Your task to perform on an android device: choose inbox layout in the gmail app Image 0: 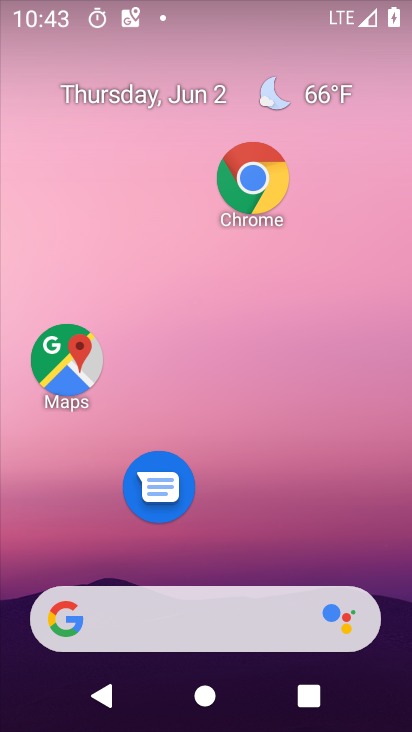
Step 0: drag from (228, 725) to (186, 206)
Your task to perform on an android device: choose inbox layout in the gmail app Image 1: 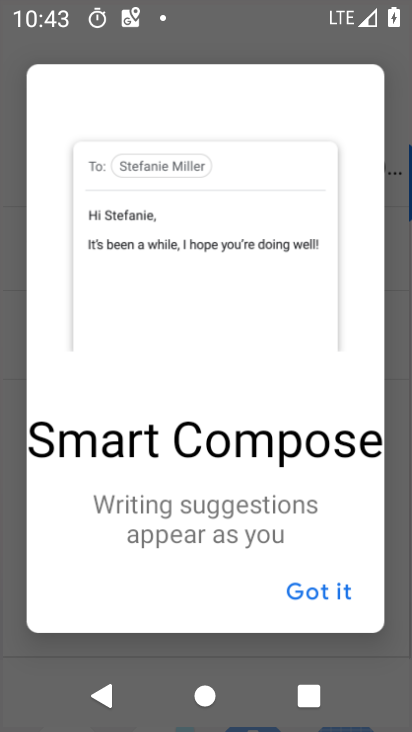
Step 1: click (338, 473)
Your task to perform on an android device: choose inbox layout in the gmail app Image 2: 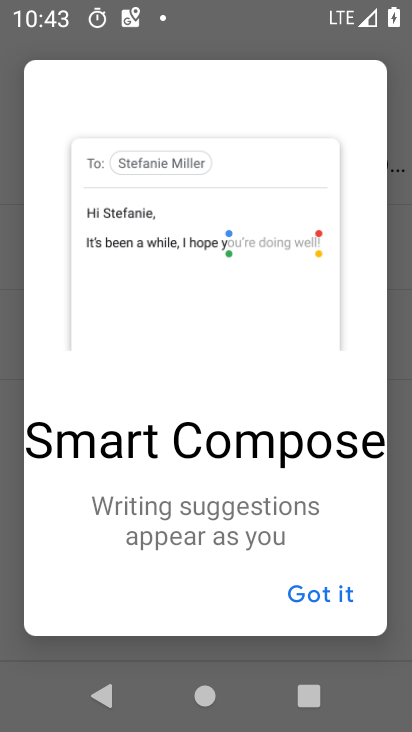
Step 2: press home button
Your task to perform on an android device: choose inbox layout in the gmail app Image 3: 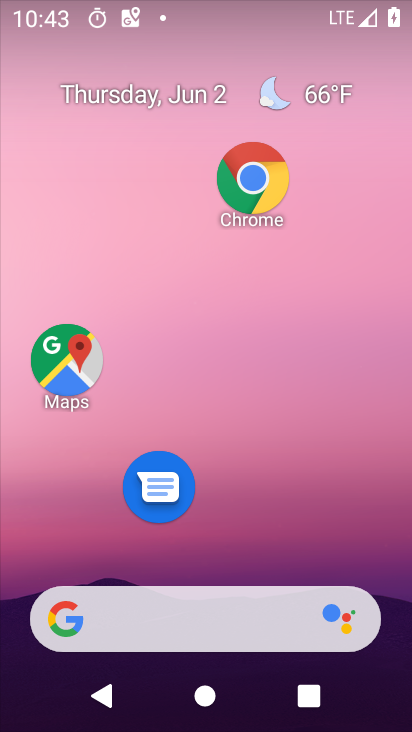
Step 3: drag from (237, 725) to (236, 122)
Your task to perform on an android device: choose inbox layout in the gmail app Image 4: 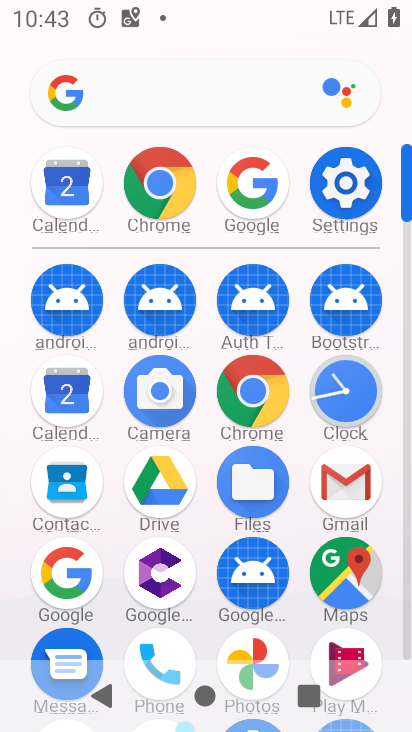
Step 4: click (339, 468)
Your task to perform on an android device: choose inbox layout in the gmail app Image 5: 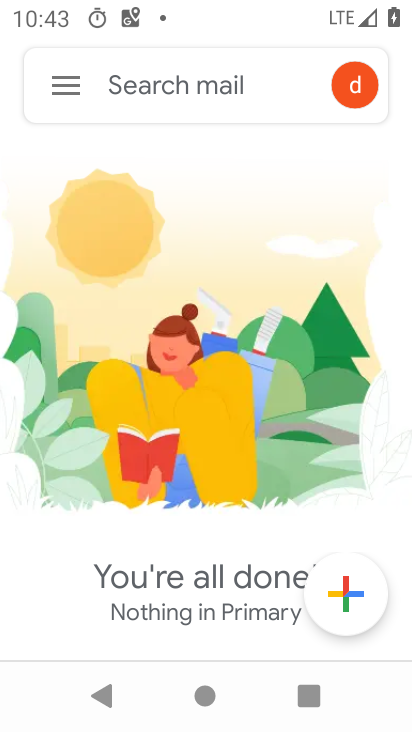
Step 5: click (60, 84)
Your task to perform on an android device: choose inbox layout in the gmail app Image 6: 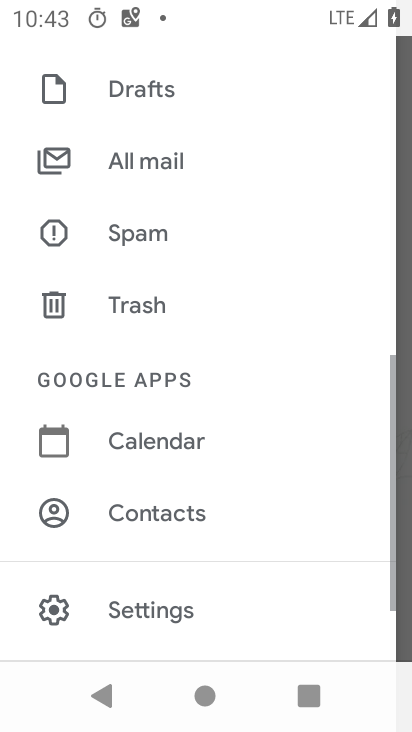
Step 6: click (167, 604)
Your task to perform on an android device: choose inbox layout in the gmail app Image 7: 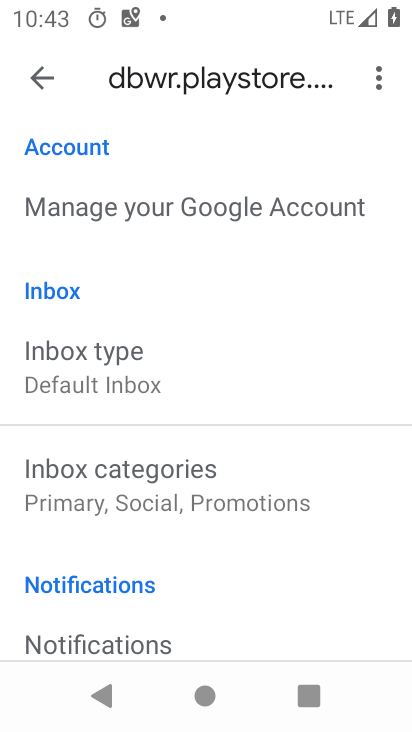
Step 7: click (88, 378)
Your task to perform on an android device: choose inbox layout in the gmail app Image 8: 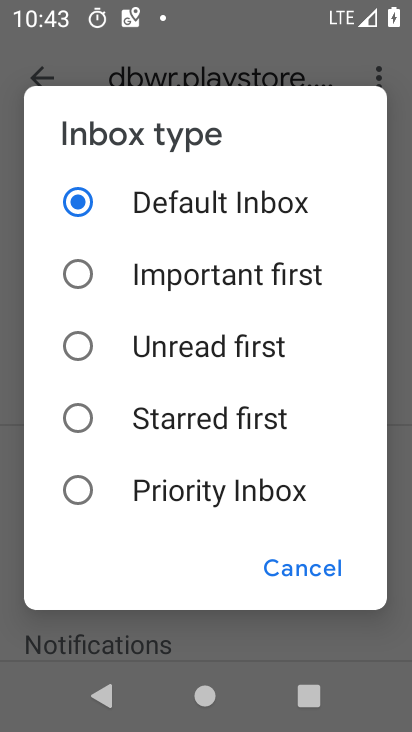
Step 8: click (78, 277)
Your task to perform on an android device: choose inbox layout in the gmail app Image 9: 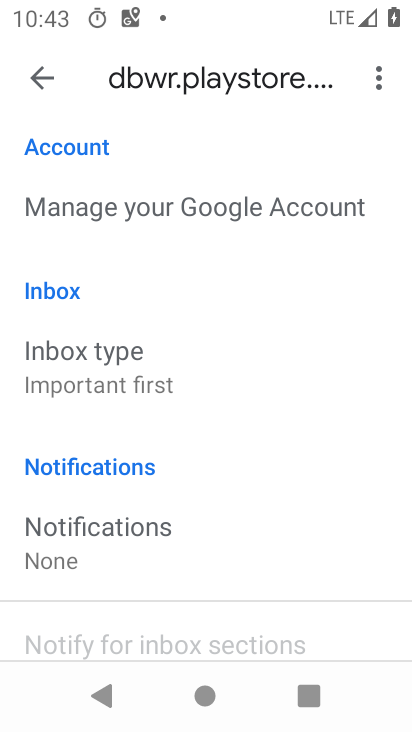
Step 9: task complete